Your task to perform on an android device: Open Wikipedia Image 0: 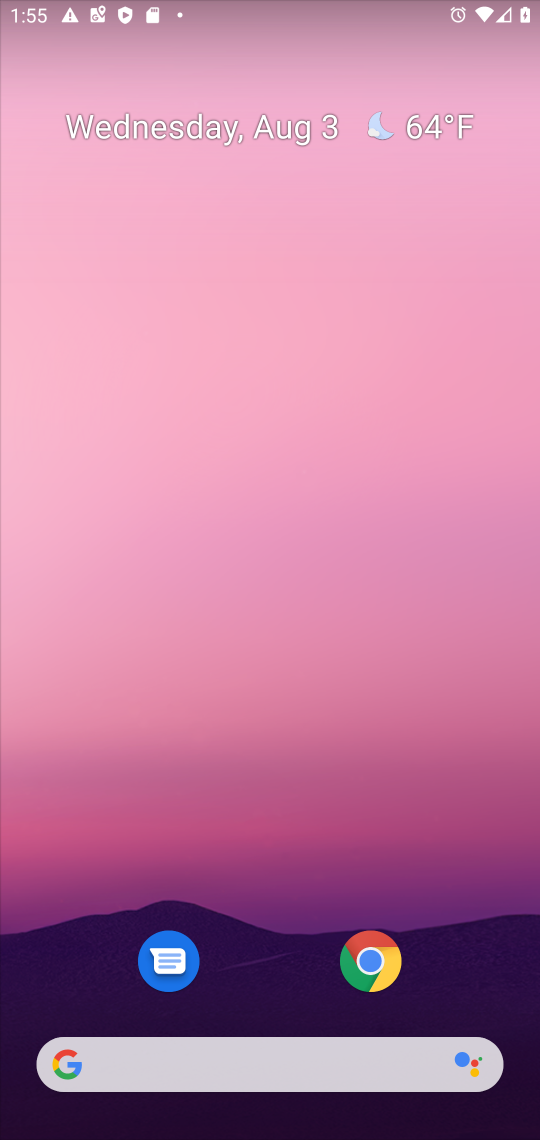
Step 0: click (378, 966)
Your task to perform on an android device: Open Wikipedia Image 1: 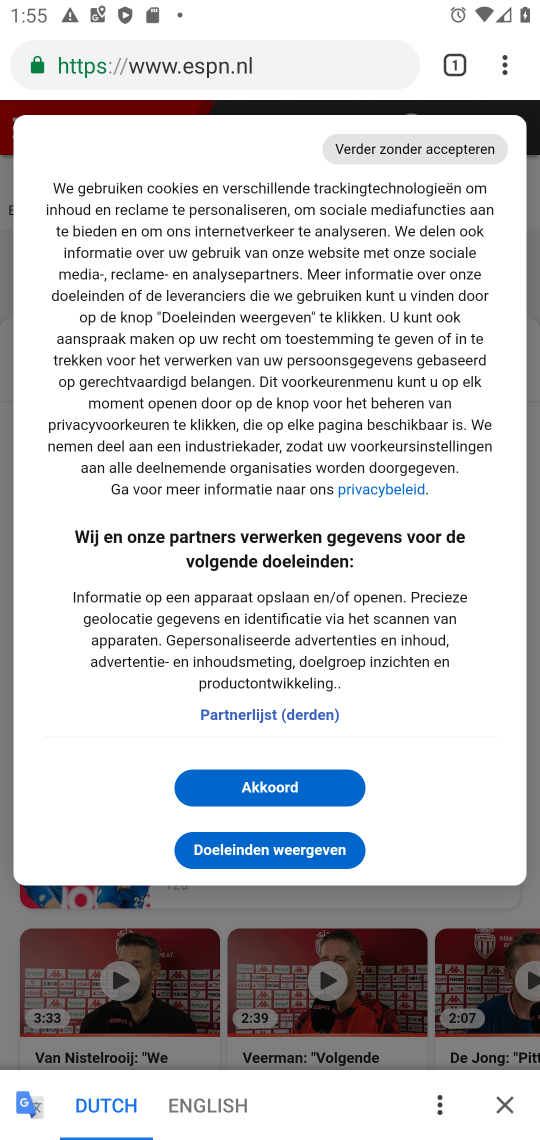
Step 1: click (286, 54)
Your task to perform on an android device: Open Wikipedia Image 2: 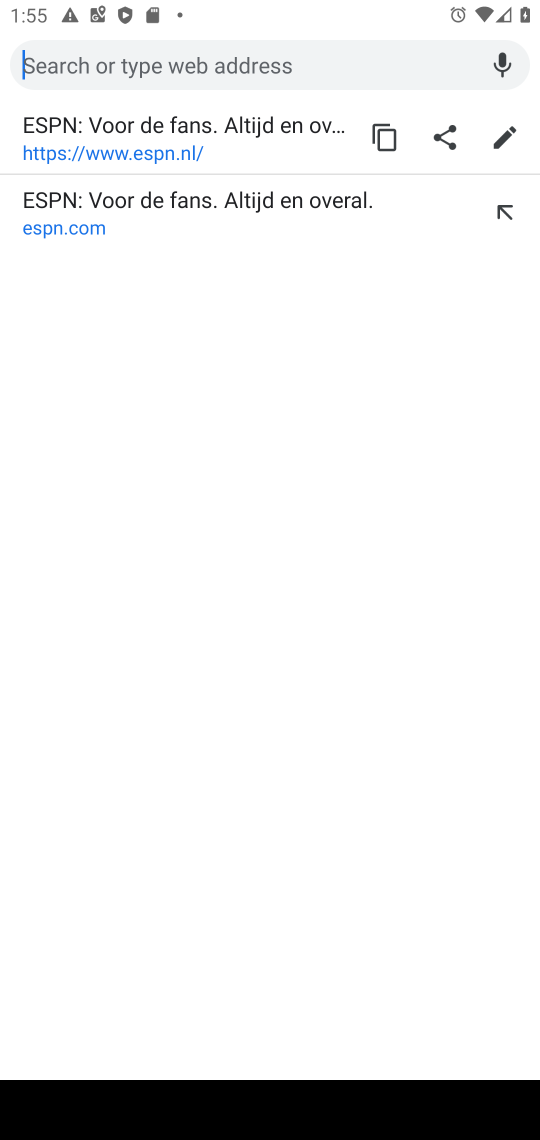
Step 2: type "wikipedia"
Your task to perform on an android device: Open Wikipedia Image 3: 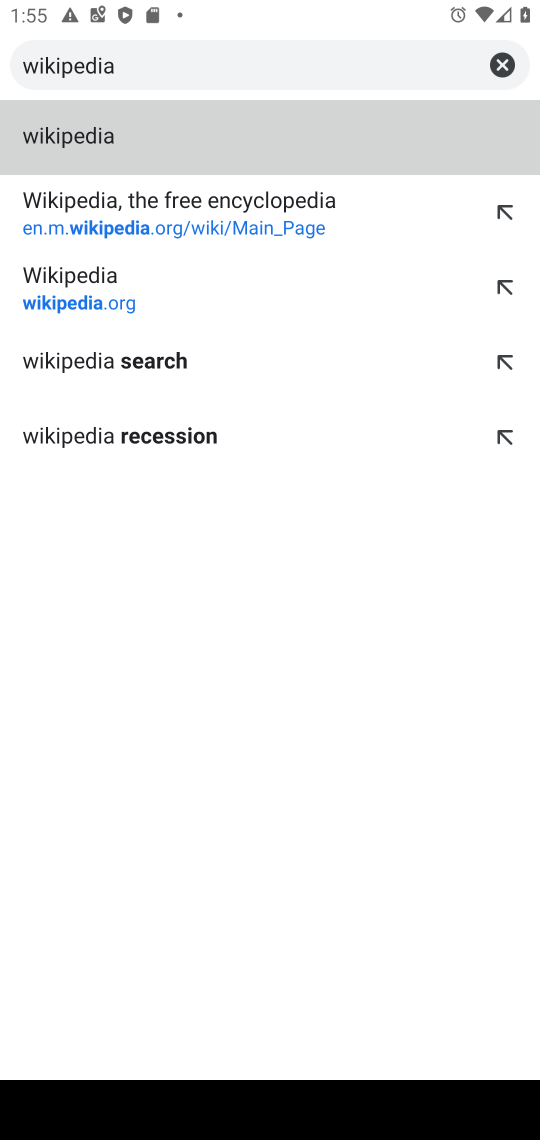
Step 3: click (61, 139)
Your task to perform on an android device: Open Wikipedia Image 4: 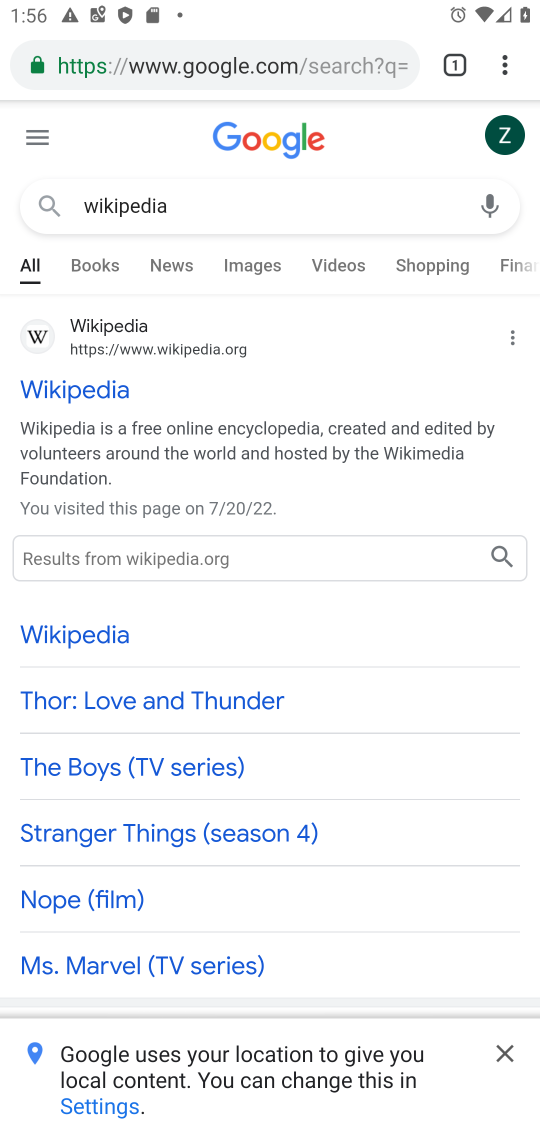
Step 4: click (72, 393)
Your task to perform on an android device: Open Wikipedia Image 5: 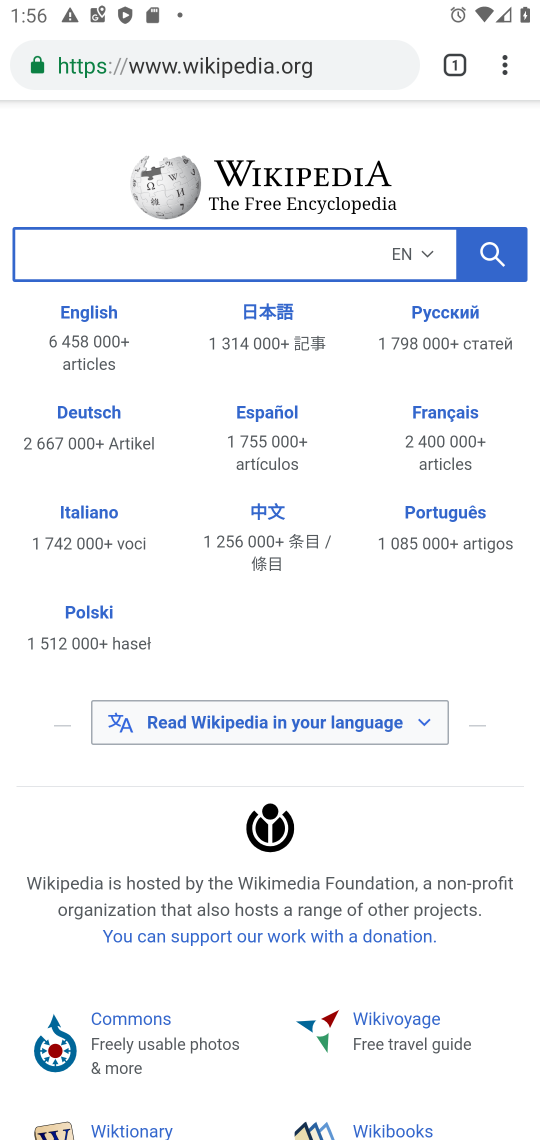
Step 5: task complete